Your task to perform on an android device: turn off translation in the chrome app Image 0: 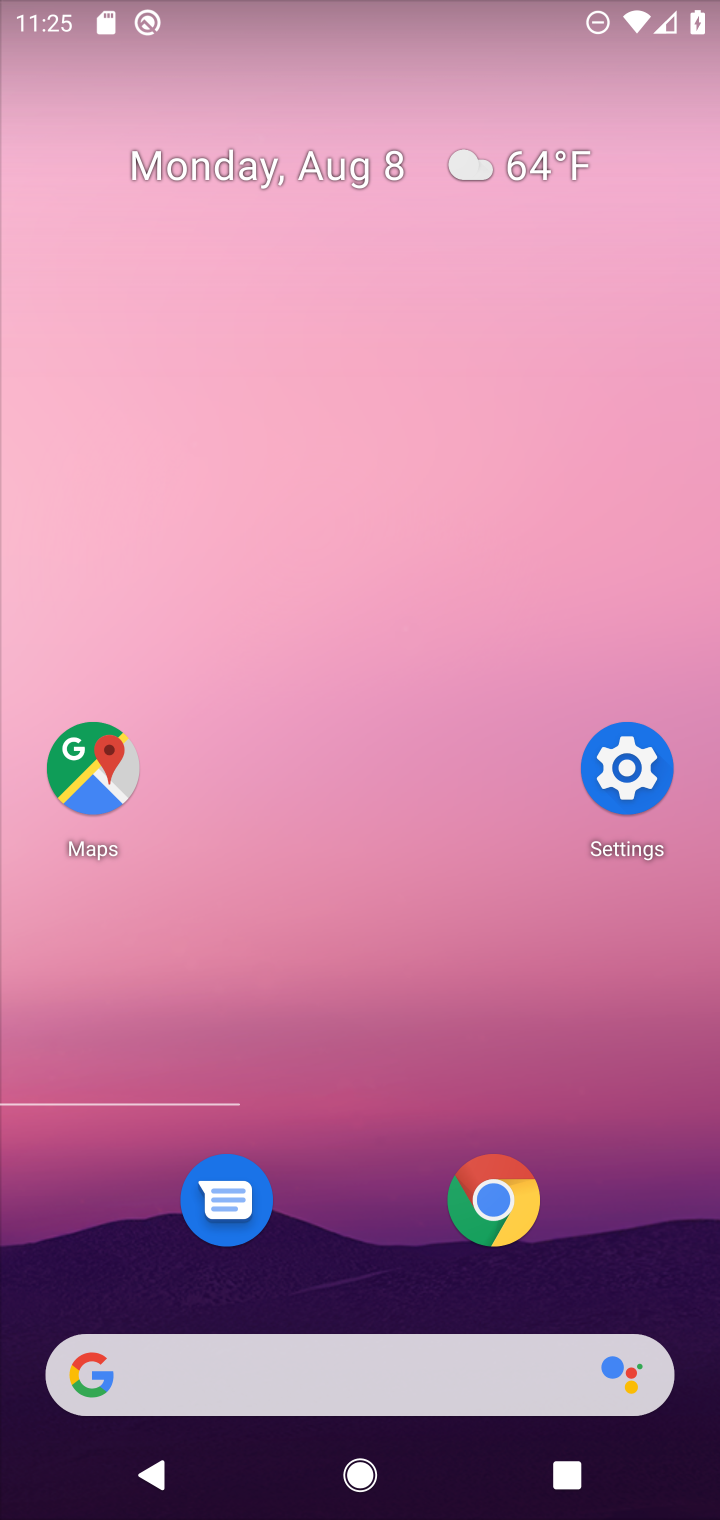
Step 0: click (477, 1190)
Your task to perform on an android device: turn off translation in the chrome app Image 1: 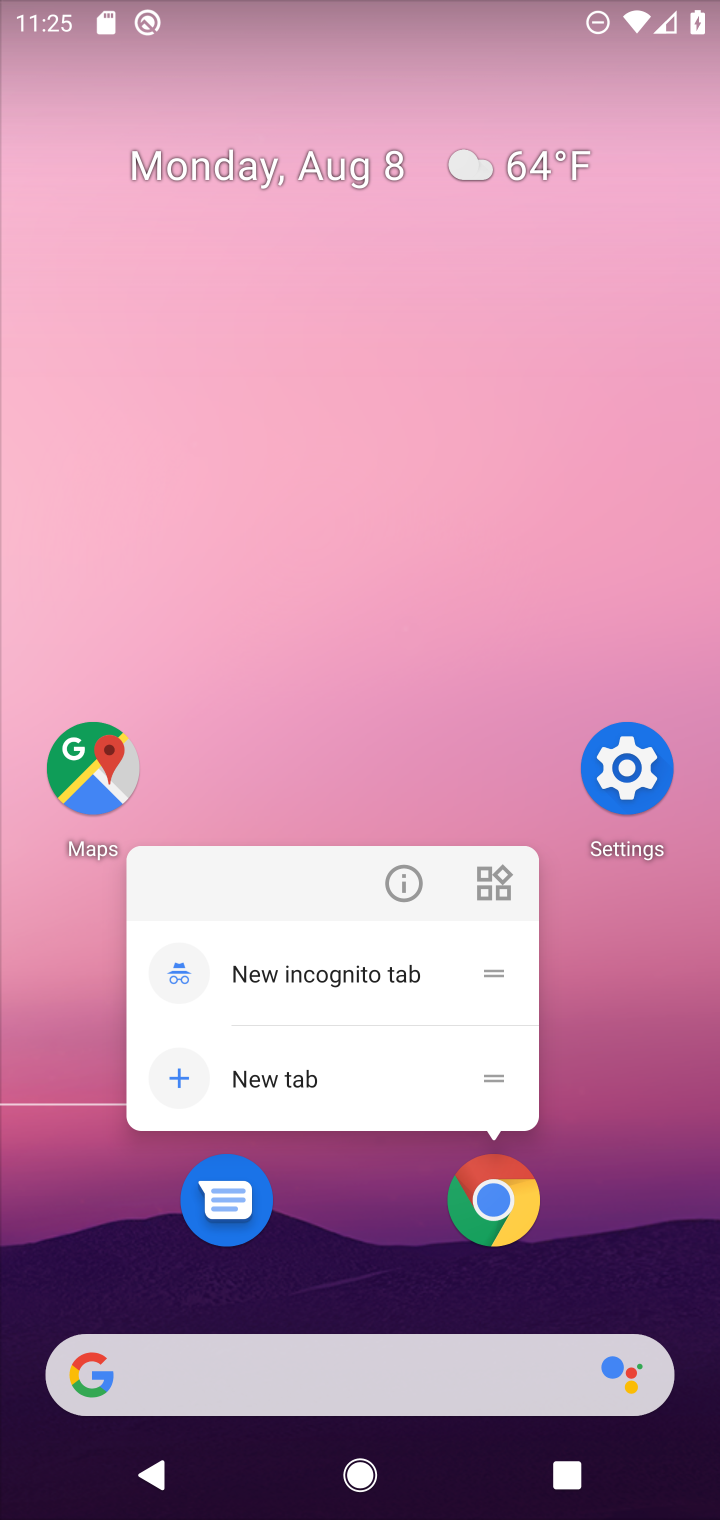
Step 1: click (477, 1208)
Your task to perform on an android device: turn off translation in the chrome app Image 2: 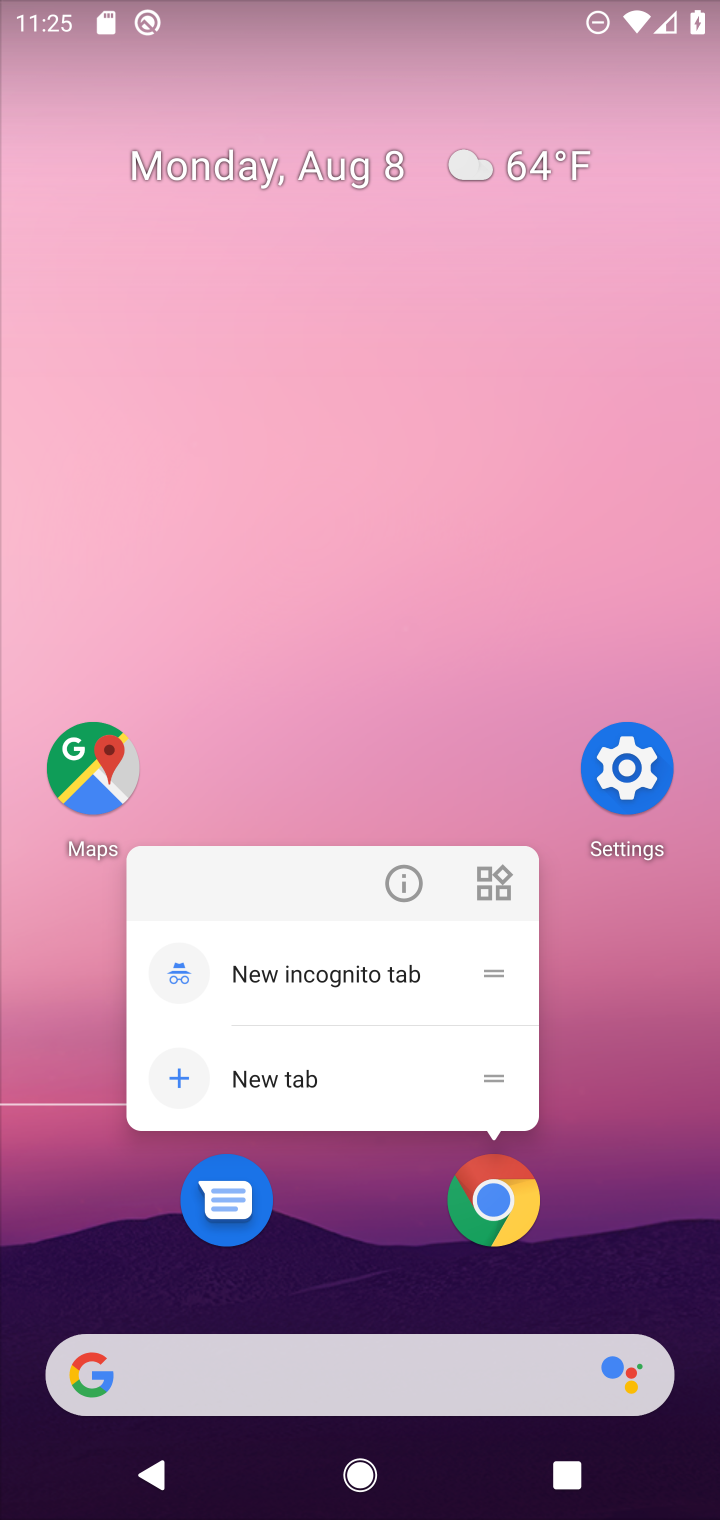
Step 2: click (477, 1208)
Your task to perform on an android device: turn off translation in the chrome app Image 3: 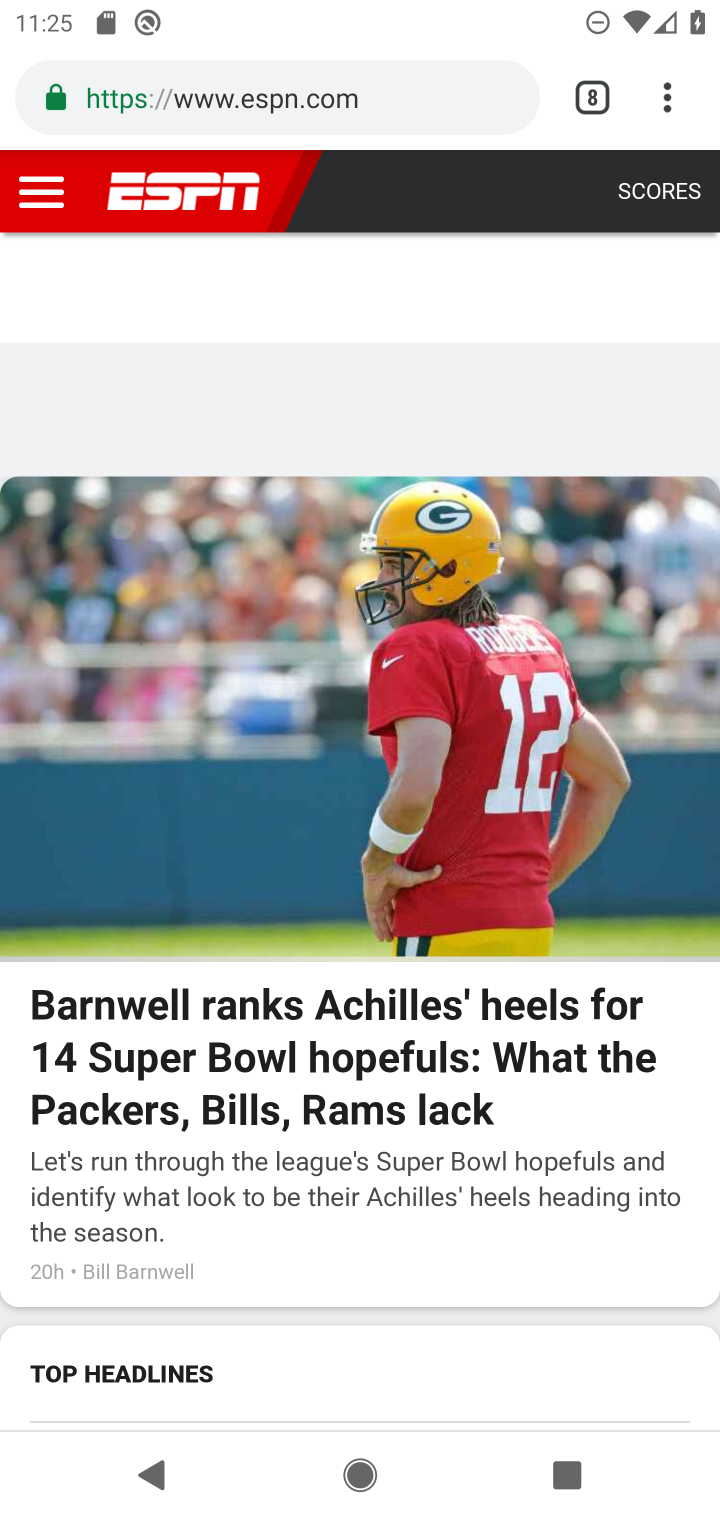
Step 3: drag from (676, 78) to (411, 1300)
Your task to perform on an android device: turn off translation in the chrome app Image 4: 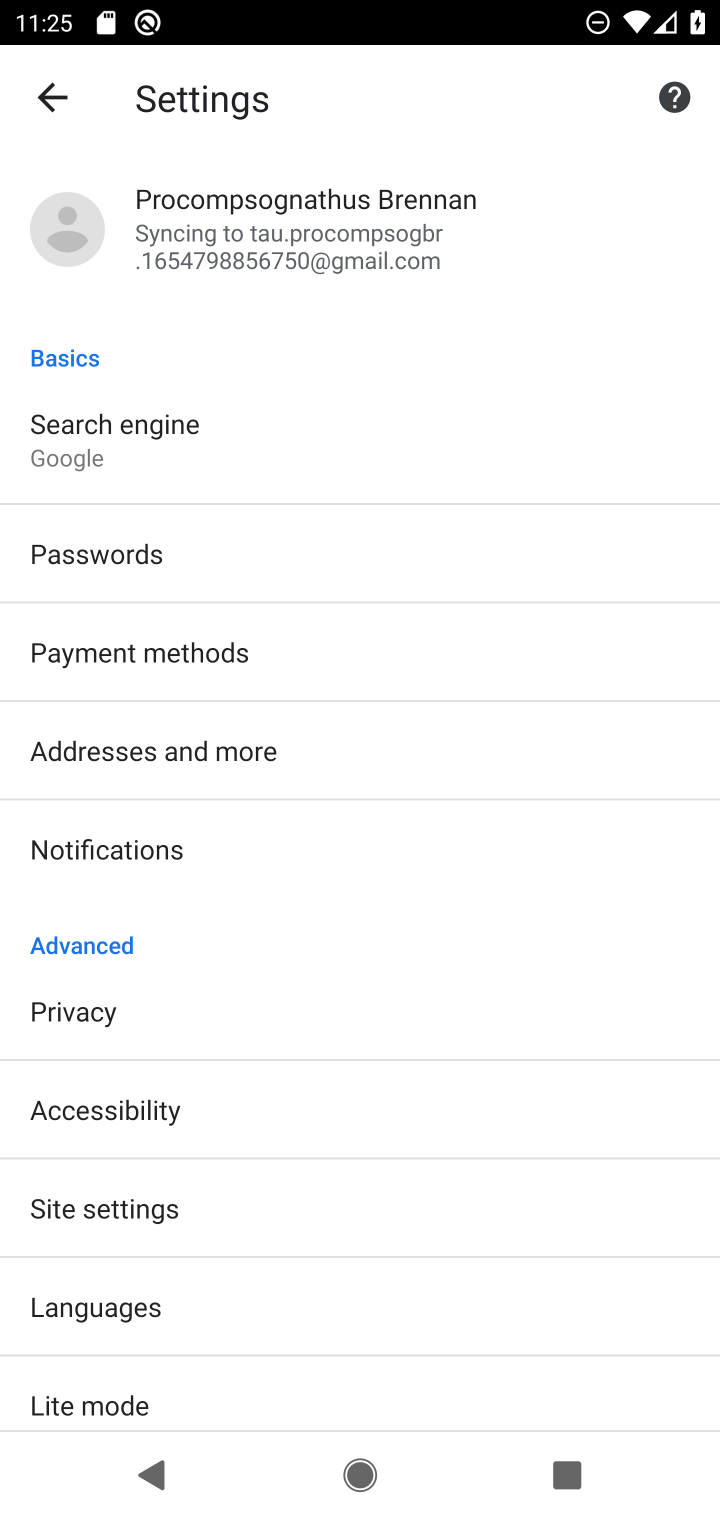
Step 4: click (144, 1310)
Your task to perform on an android device: turn off translation in the chrome app Image 5: 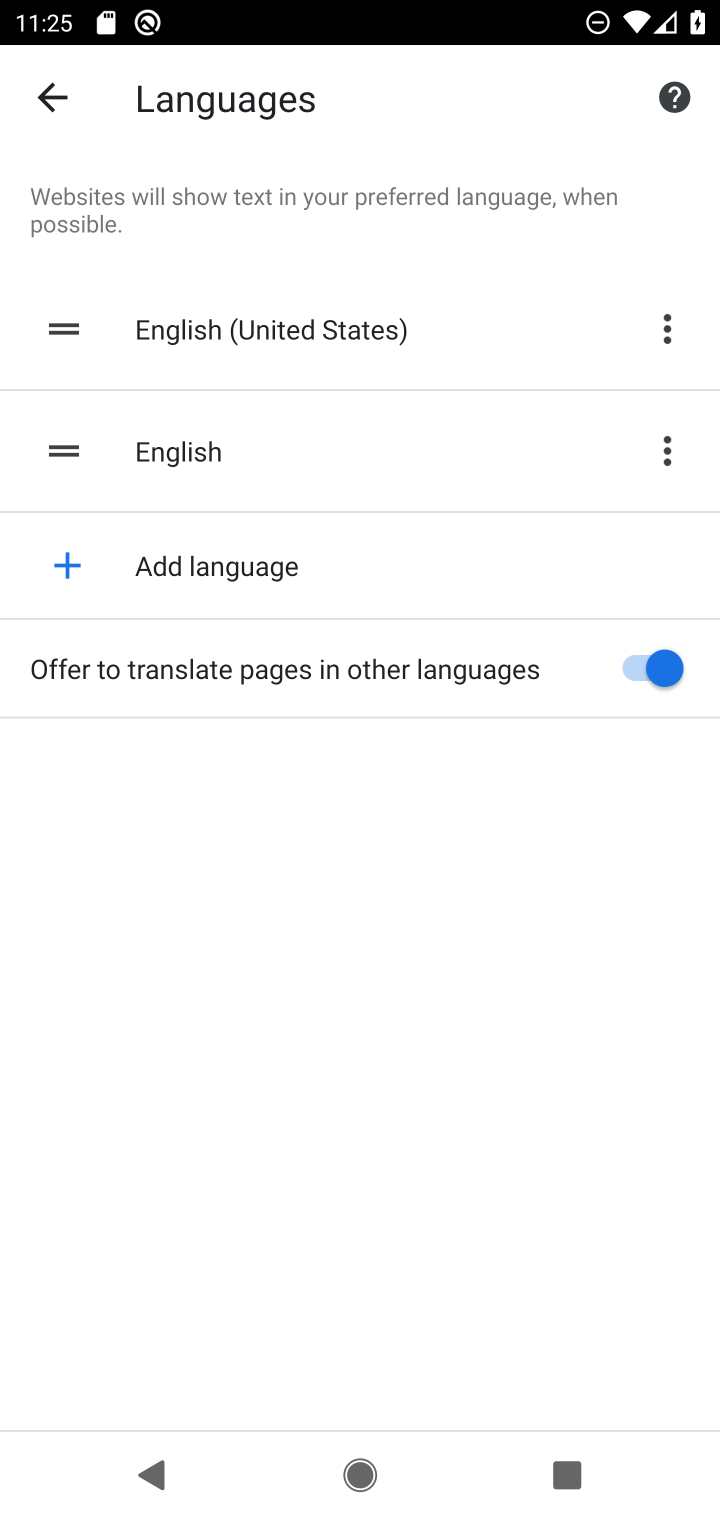
Step 5: click (639, 657)
Your task to perform on an android device: turn off translation in the chrome app Image 6: 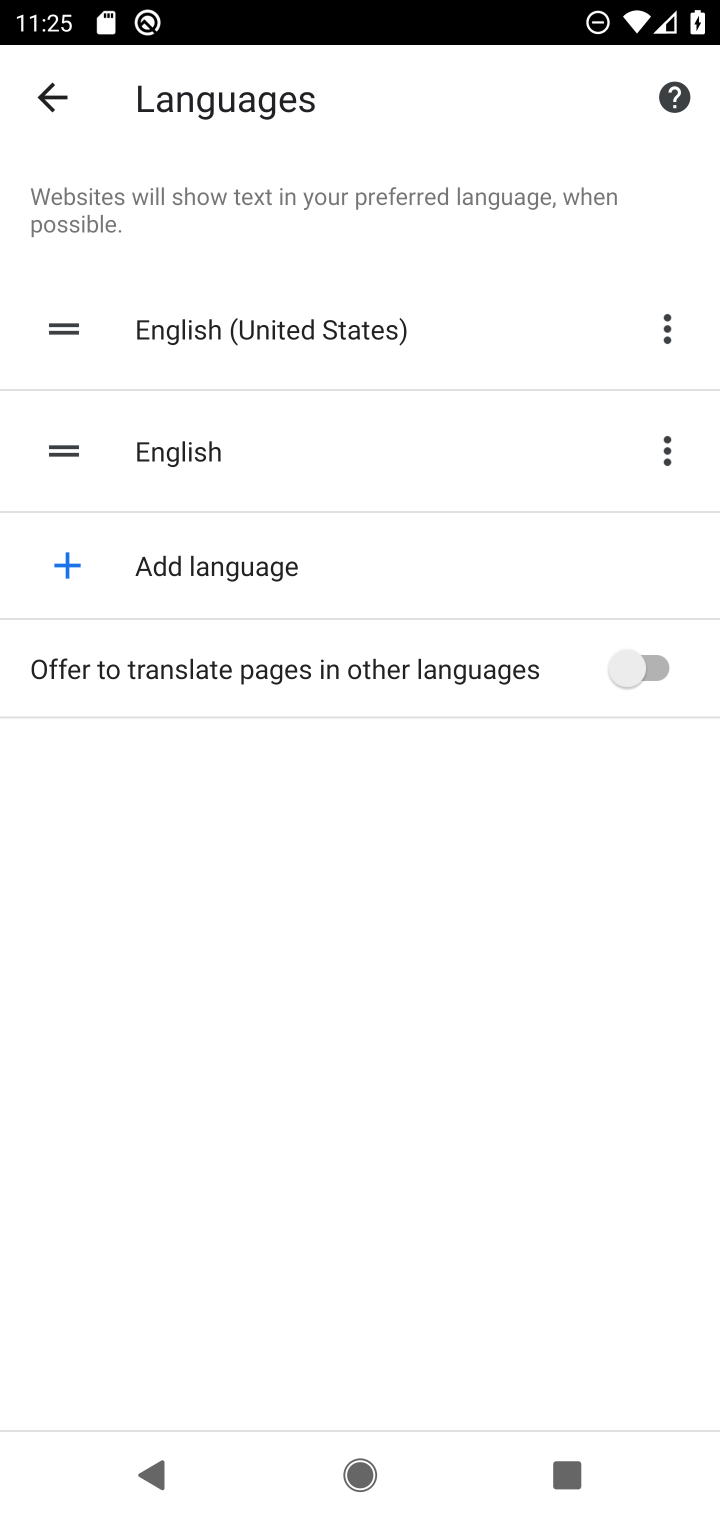
Step 6: task complete